Your task to perform on an android device: change the clock display to digital Image 0: 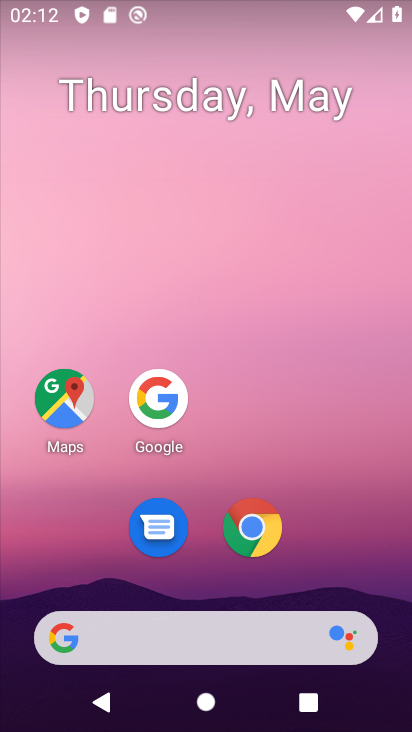
Step 0: drag from (180, 599) to (217, 231)
Your task to perform on an android device: change the clock display to digital Image 1: 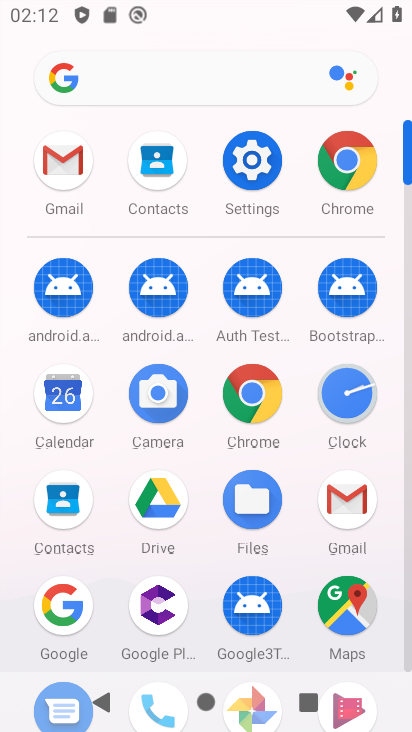
Step 1: click (322, 388)
Your task to perform on an android device: change the clock display to digital Image 2: 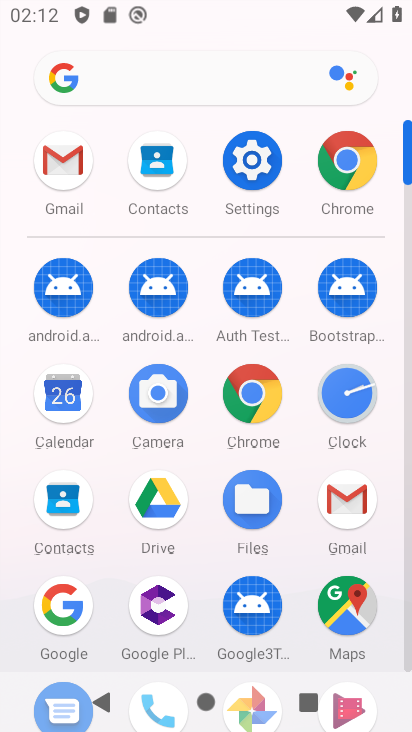
Step 2: click (322, 388)
Your task to perform on an android device: change the clock display to digital Image 3: 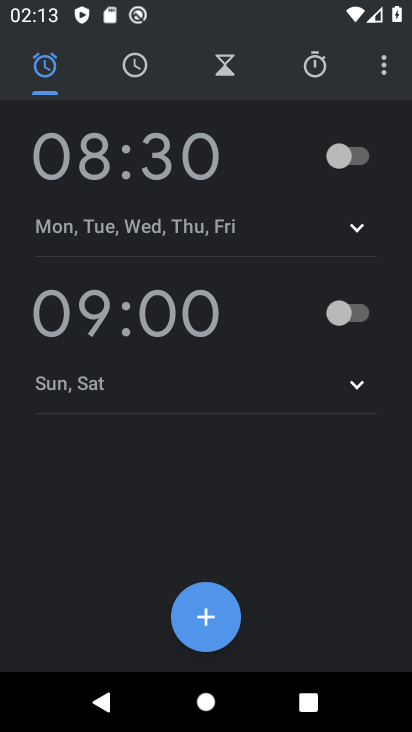
Step 3: click (384, 54)
Your task to perform on an android device: change the clock display to digital Image 4: 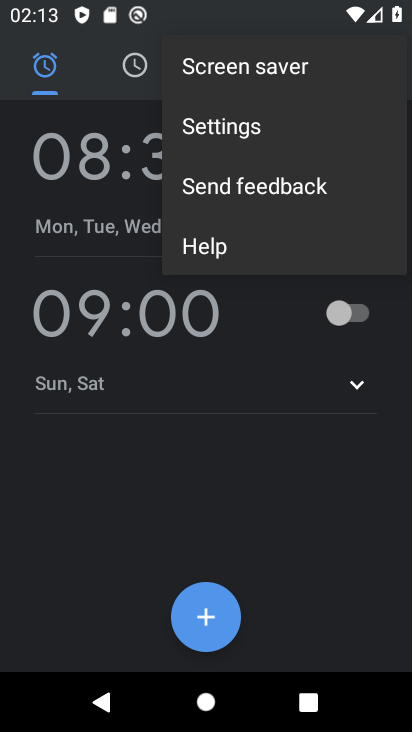
Step 4: click (266, 144)
Your task to perform on an android device: change the clock display to digital Image 5: 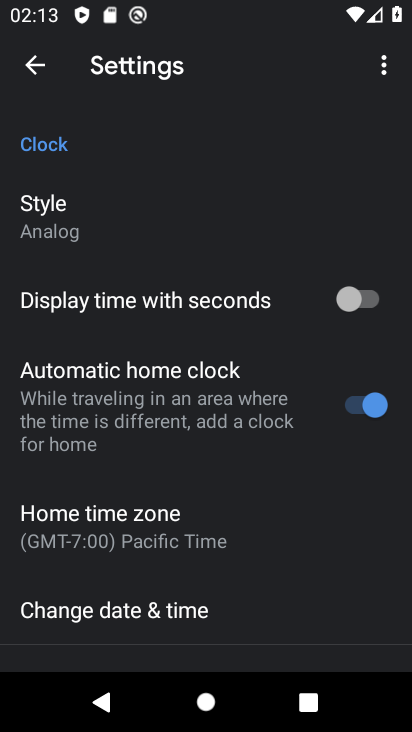
Step 5: click (58, 213)
Your task to perform on an android device: change the clock display to digital Image 6: 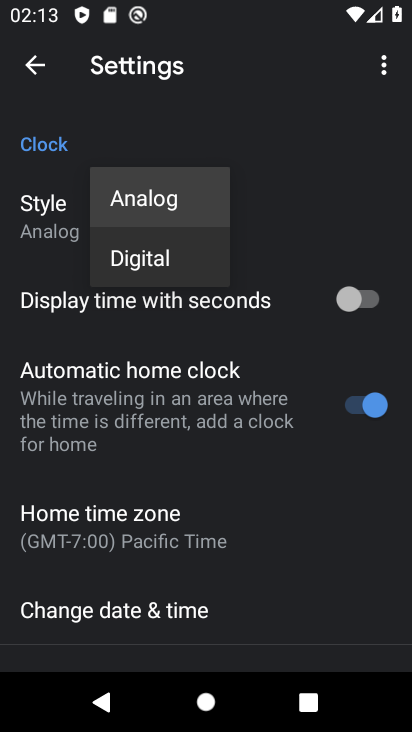
Step 6: click (157, 253)
Your task to perform on an android device: change the clock display to digital Image 7: 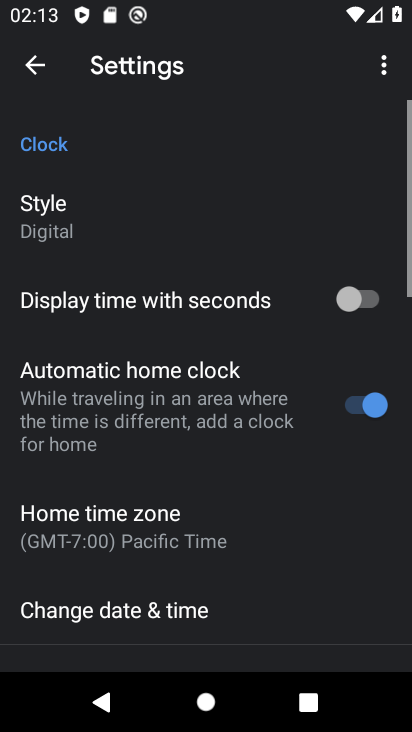
Step 7: task complete